Your task to perform on an android device: Go to Reddit.com Image 0: 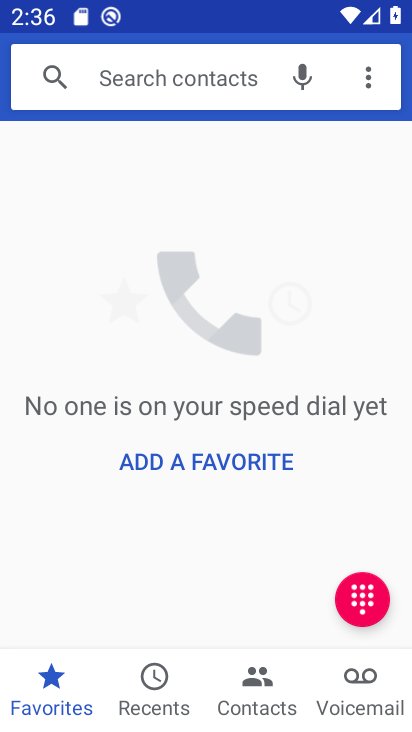
Step 0: press home button
Your task to perform on an android device: Go to Reddit.com Image 1: 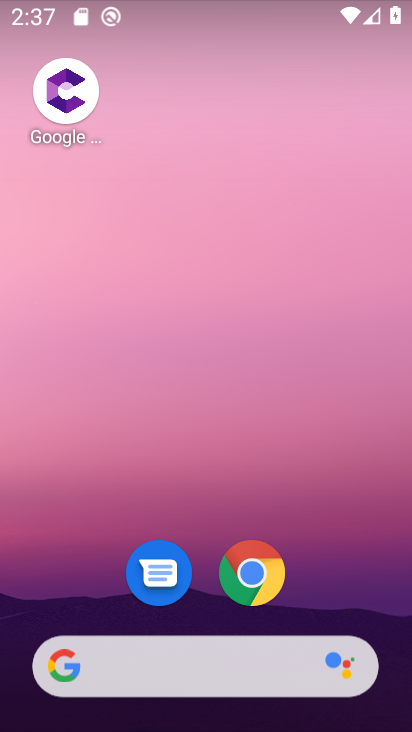
Step 1: click (260, 577)
Your task to perform on an android device: Go to Reddit.com Image 2: 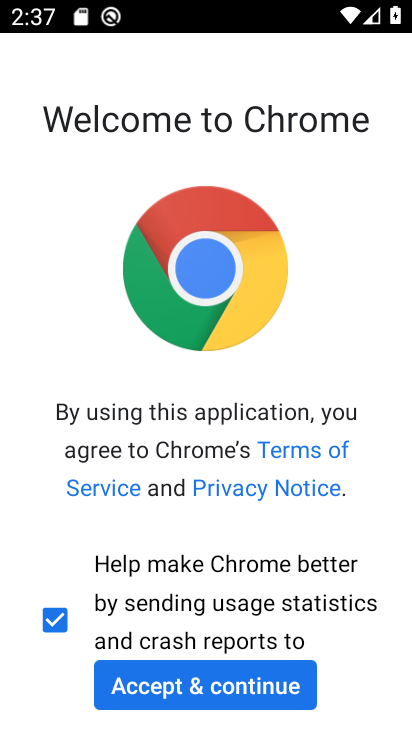
Step 2: click (236, 699)
Your task to perform on an android device: Go to Reddit.com Image 3: 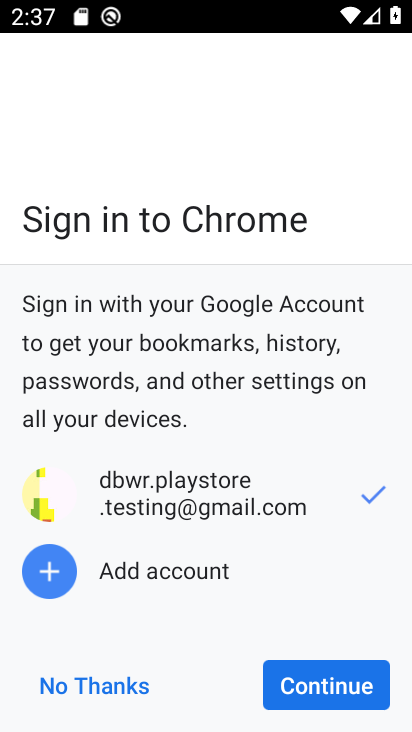
Step 3: click (352, 699)
Your task to perform on an android device: Go to Reddit.com Image 4: 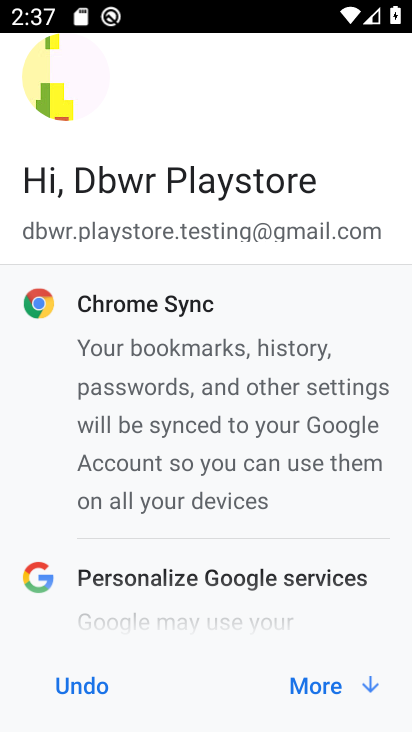
Step 4: drag from (222, 602) to (266, 156)
Your task to perform on an android device: Go to Reddit.com Image 5: 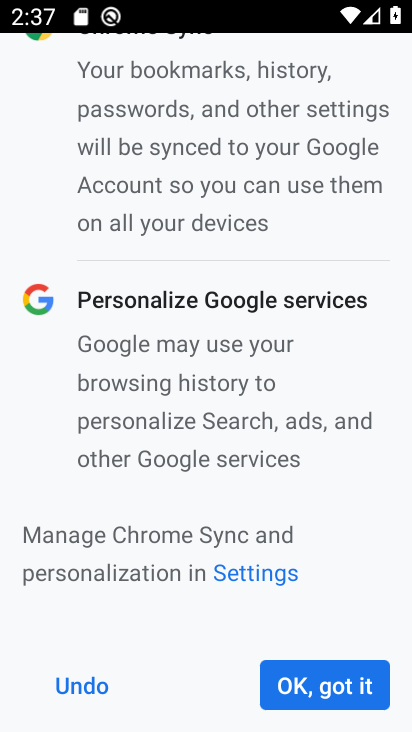
Step 5: drag from (211, 572) to (285, 35)
Your task to perform on an android device: Go to Reddit.com Image 6: 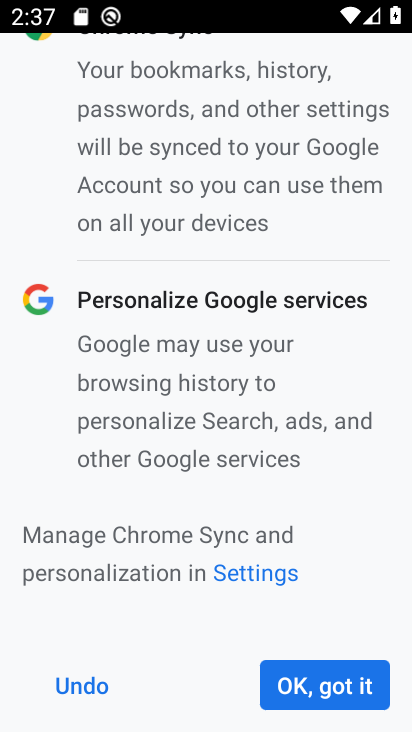
Step 6: click (316, 681)
Your task to perform on an android device: Go to Reddit.com Image 7: 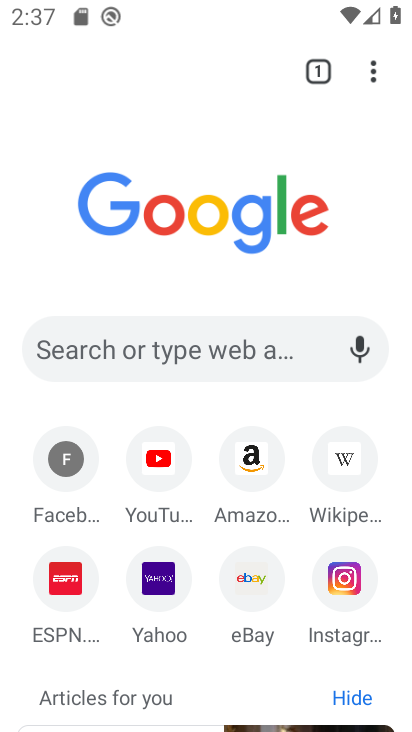
Step 7: click (189, 347)
Your task to perform on an android device: Go to Reddit.com Image 8: 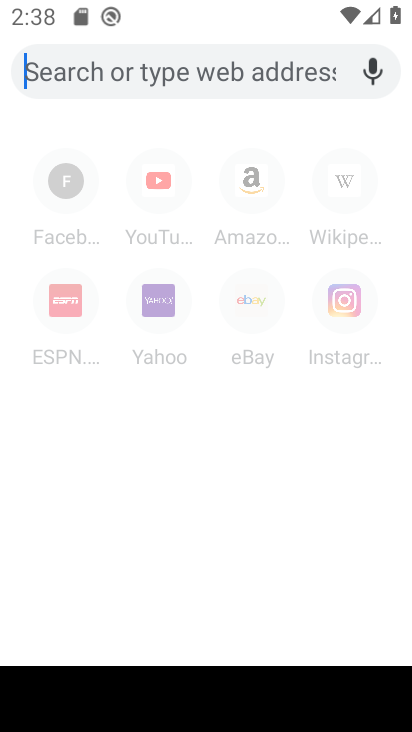
Step 8: type "reddit.com"
Your task to perform on an android device: Go to Reddit.com Image 9: 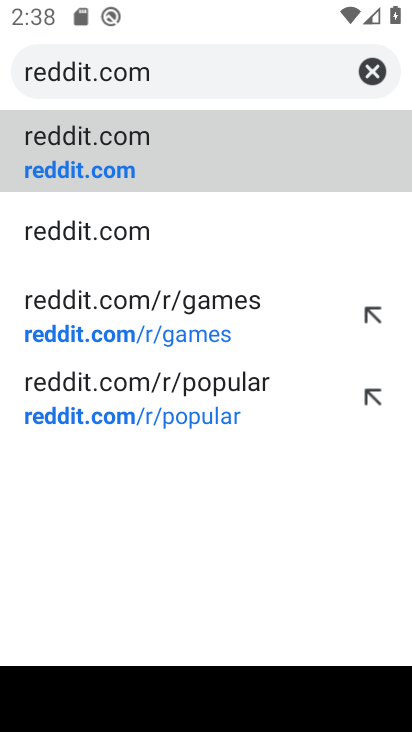
Step 9: click (86, 159)
Your task to perform on an android device: Go to Reddit.com Image 10: 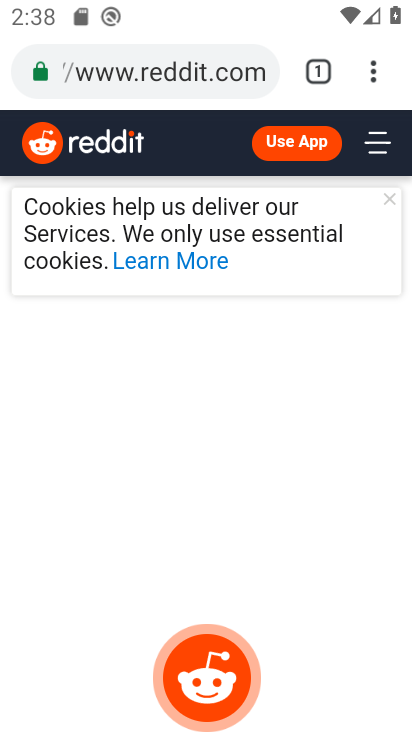
Step 10: task complete